Your task to perform on an android device: install app "Google Play Music" Image 0: 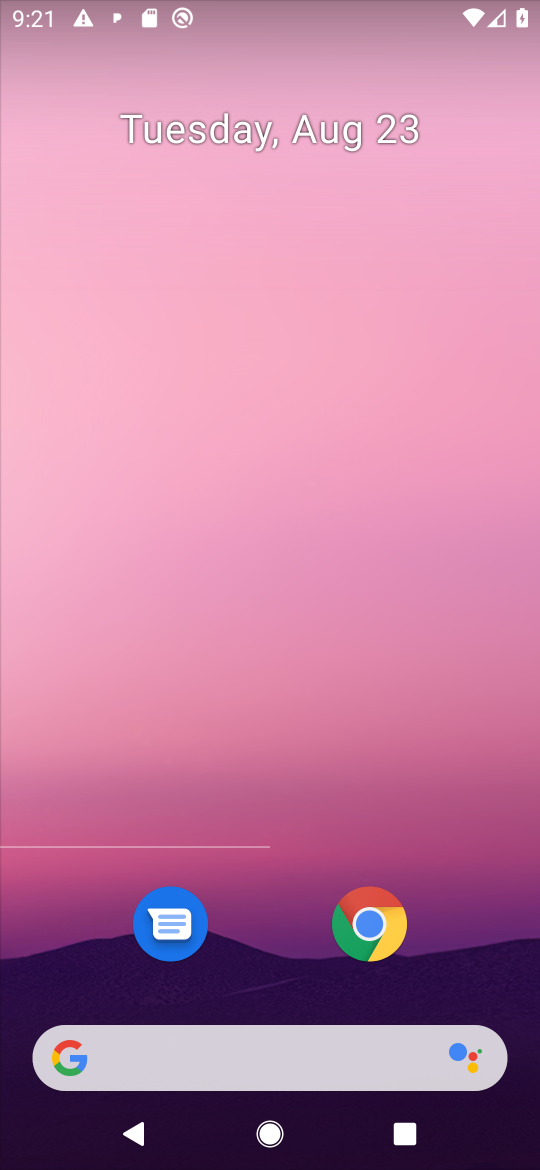
Step 0: press home button
Your task to perform on an android device: install app "Google Play Music" Image 1: 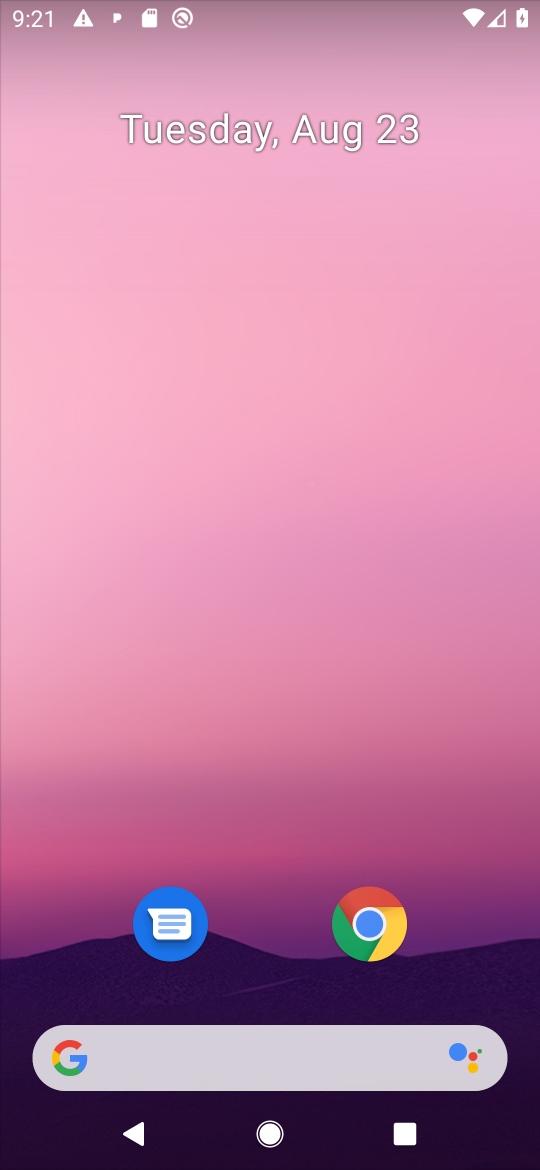
Step 1: drag from (463, 975) to (452, 70)
Your task to perform on an android device: install app "Google Play Music" Image 2: 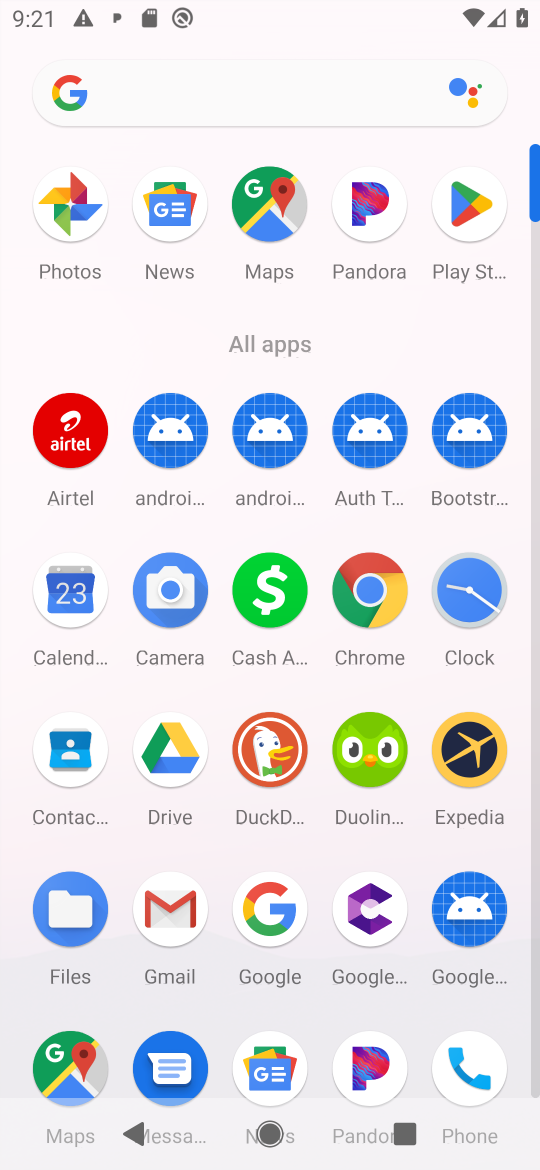
Step 2: click (467, 208)
Your task to perform on an android device: install app "Google Play Music" Image 3: 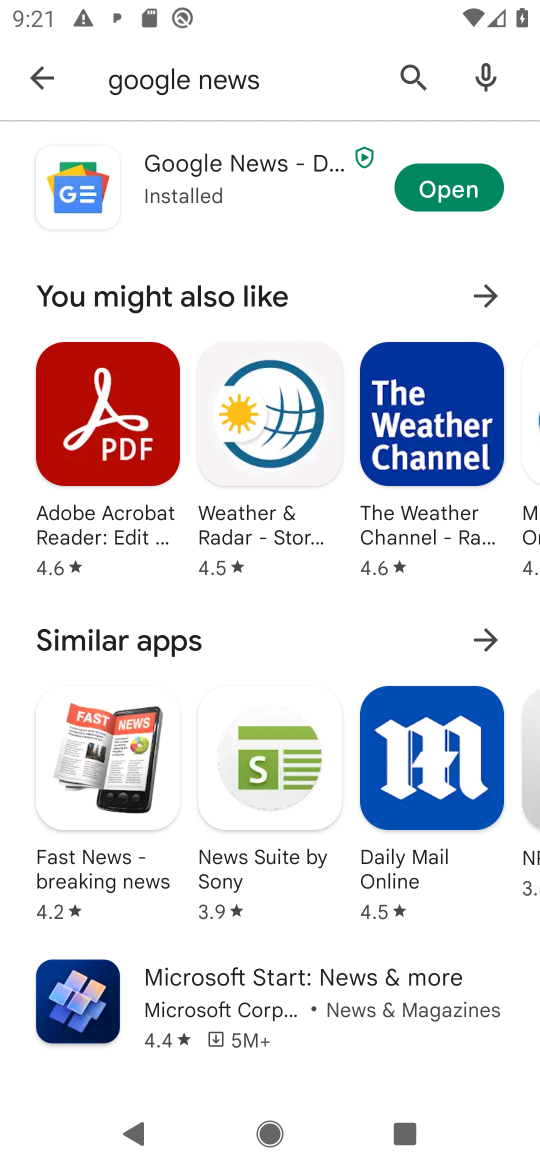
Step 3: press back button
Your task to perform on an android device: install app "Google Play Music" Image 4: 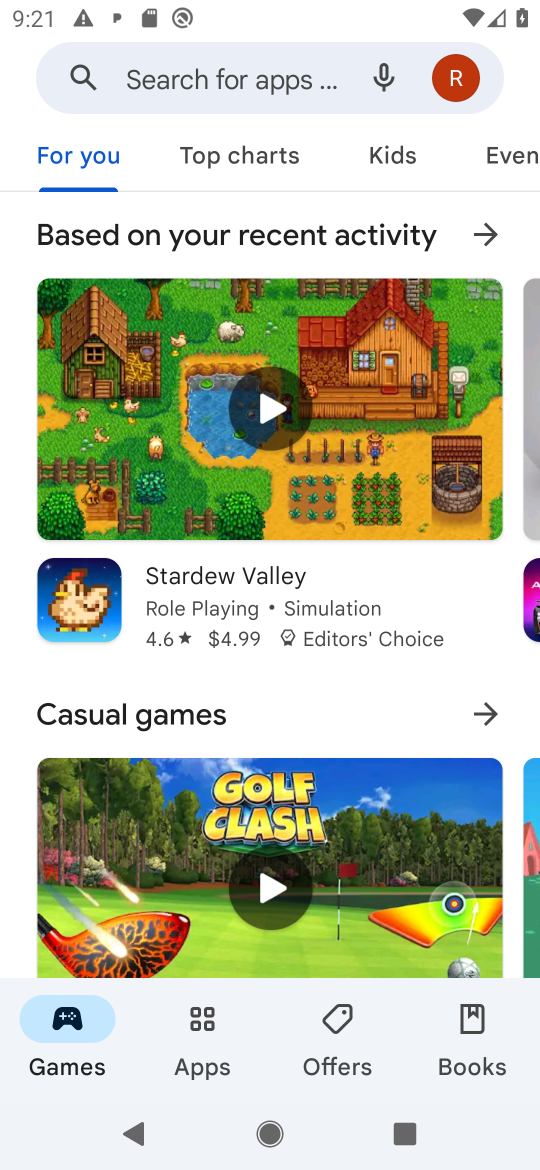
Step 4: click (248, 81)
Your task to perform on an android device: install app "Google Play Music" Image 5: 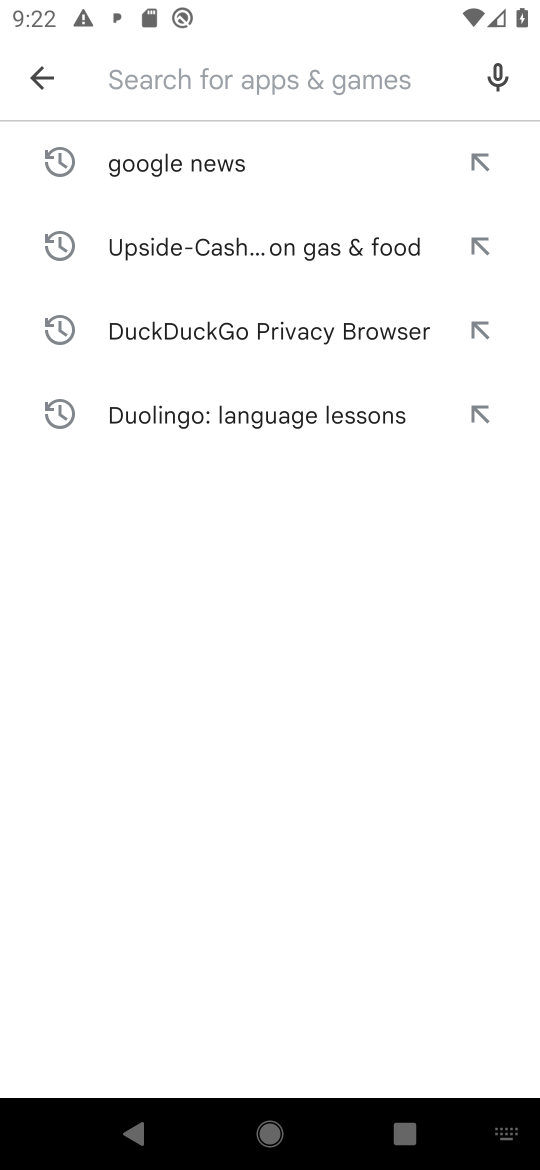
Step 5: press enter
Your task to perform on an android device: install app "Google Play Music" Image 6: 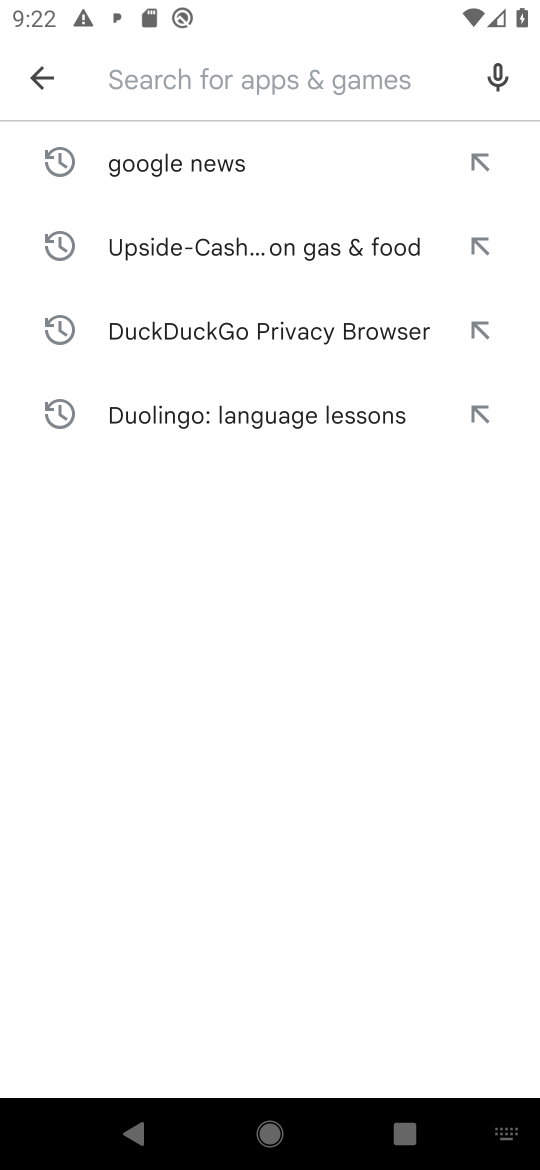
Step 6: type "Google Play Music"
Your task to perform on an android device: install app "Google Play Music" Image 7: 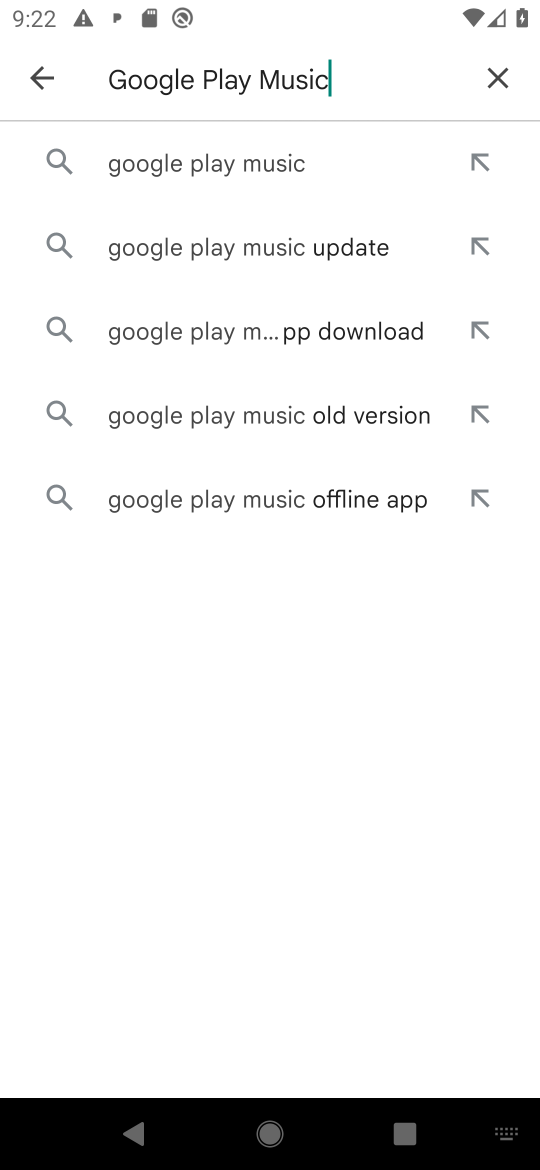
Step 7: click (298, 173)
Your task to perform on an android device: install app "Google Play Music" Image 8: 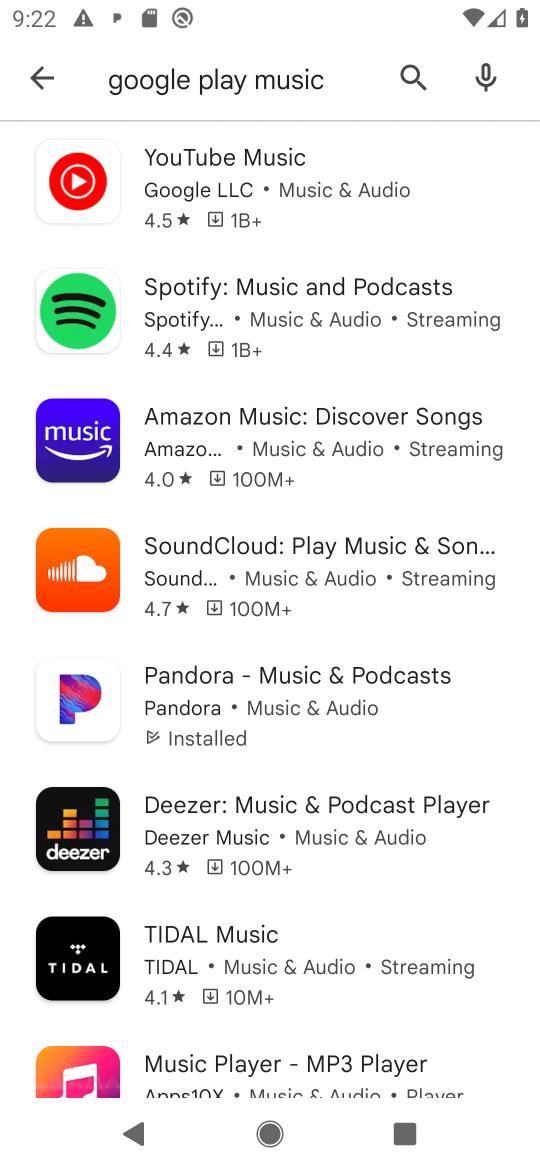
Step 8: click (258, 160)
Your task to perform on an android device: install app "Google Play Music" Image 9: 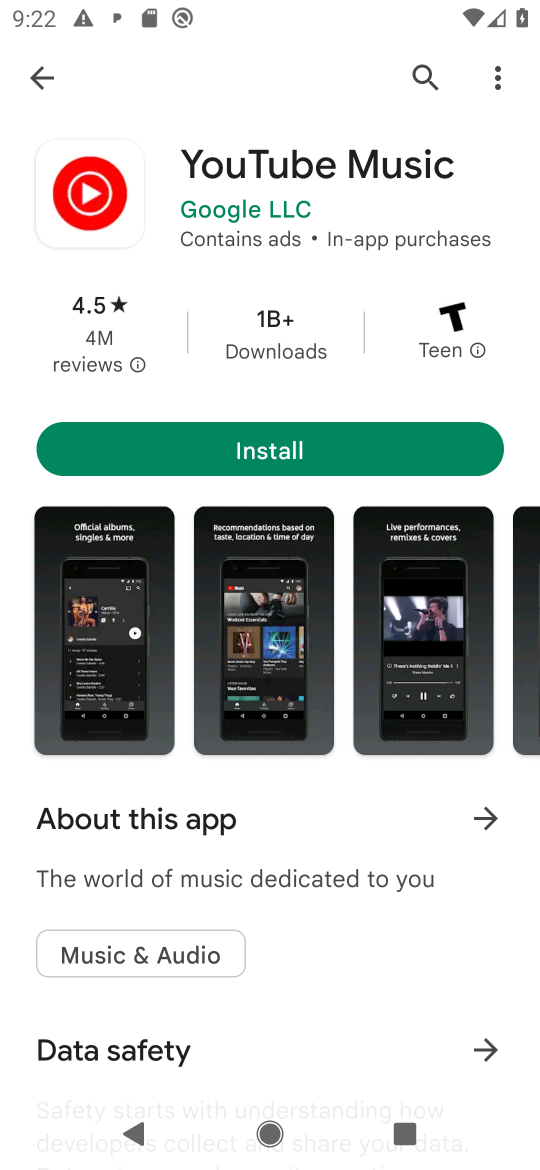
Step 9: click (448, 448)
Your task to perform on an android device: install app "Google Play Music" Image 10: 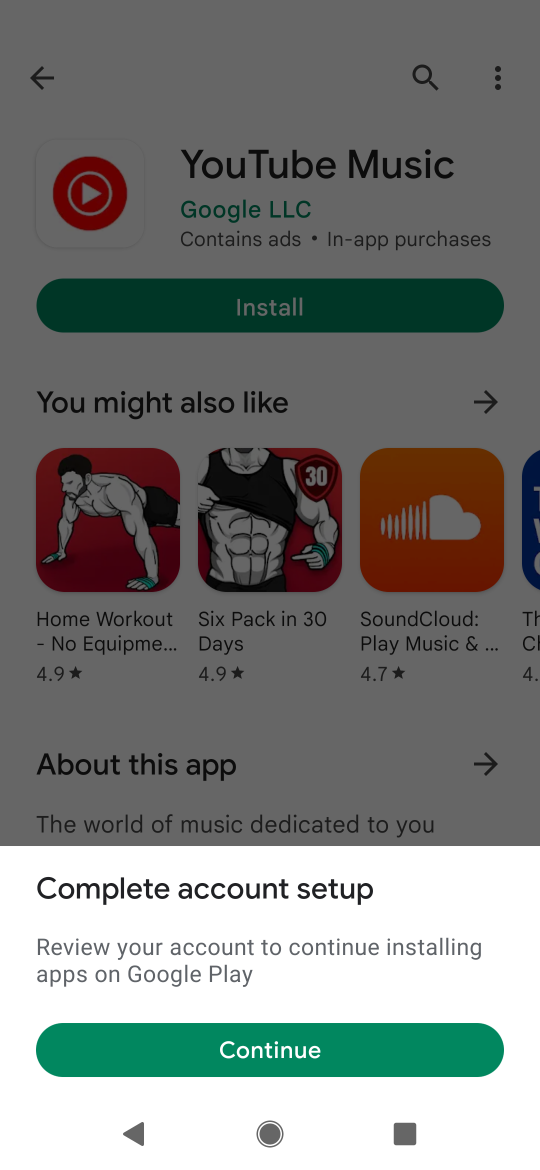
Step 10: click (366, 1054)
Your task to perform on an android device: install app "Google Play Music" Image 11: 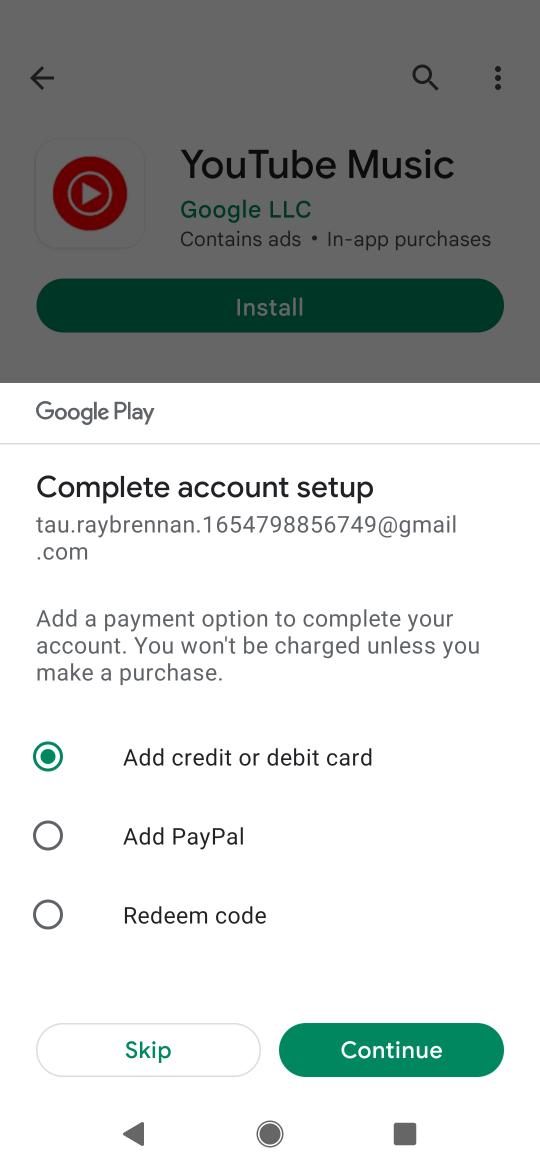
Step 11: click (175, 1039)
Your task to perform on an android device: install app "Google Play Music" Image 12: 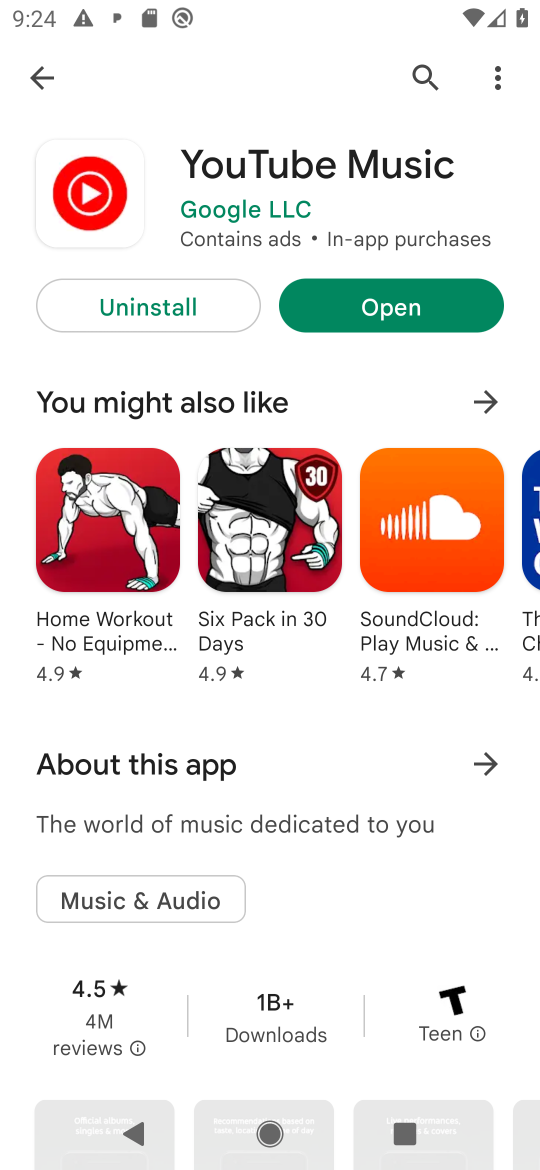
Step 12: task complete